Your task to perform on an android device: Toggle the flashlight Image 0: 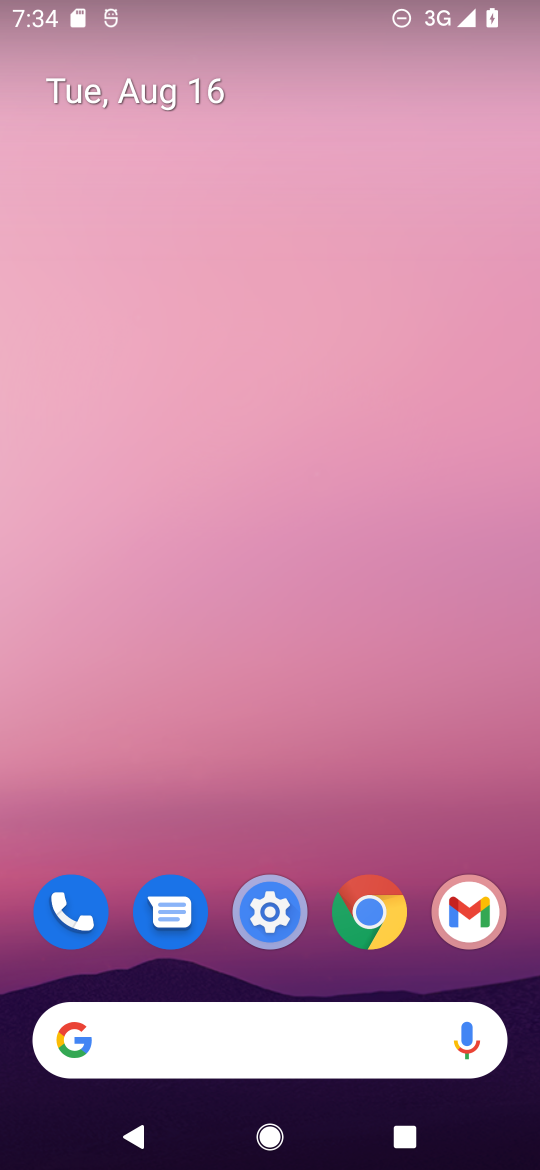
Step 0: drag from (305, 27) to (319, 836)
Your task to perform on an android device: Toggle the flashlight Image 1: 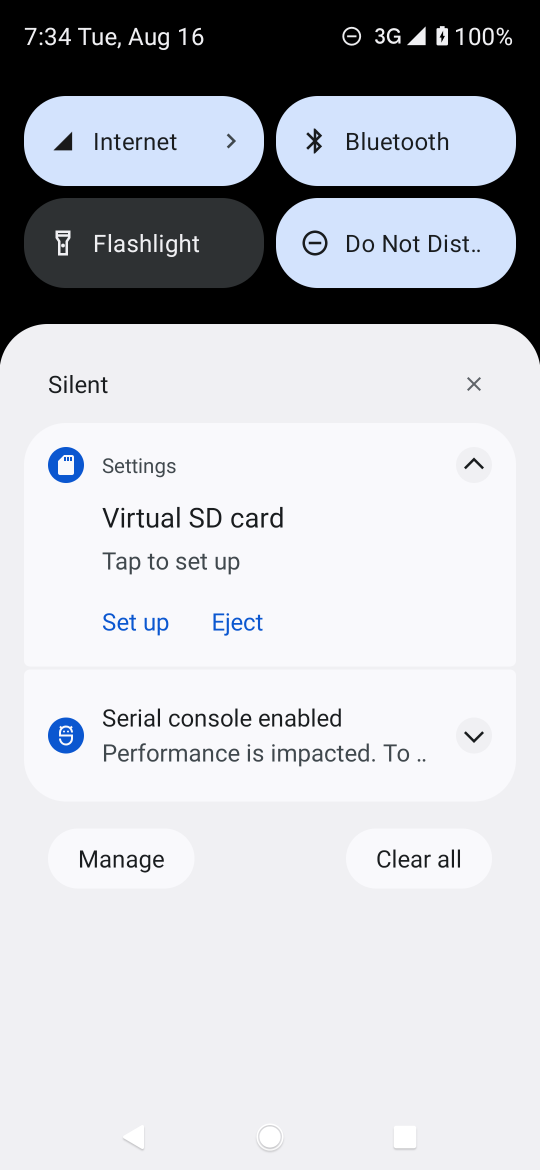
Step 1: click (111, 251)
Your task to perform on an android device: Toggle the flashlight Image 2: 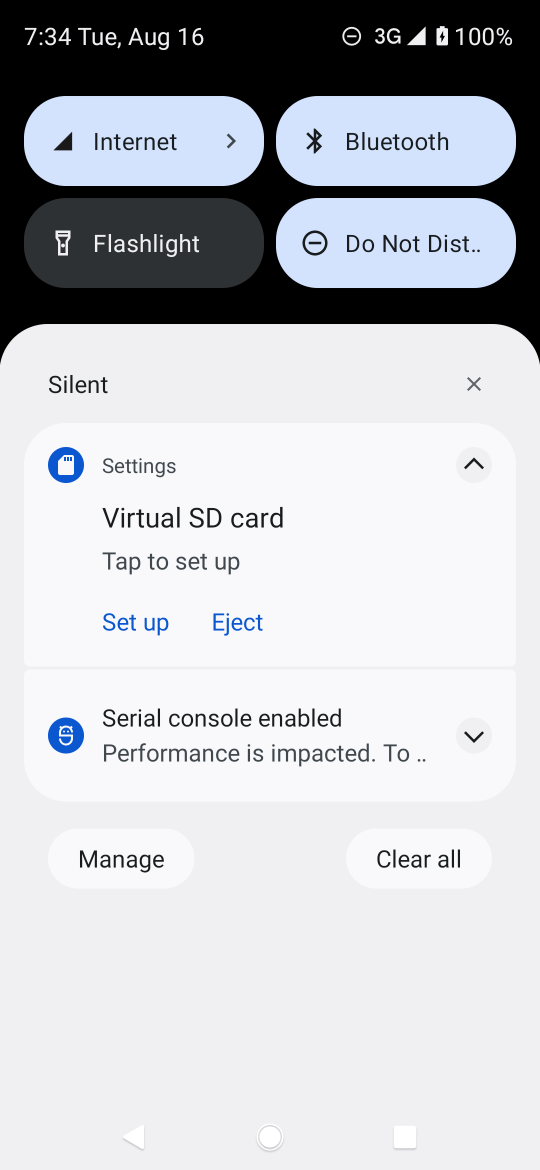
Step 2: task complete